Your task to perform on an android device: Show me recent news Image 0: 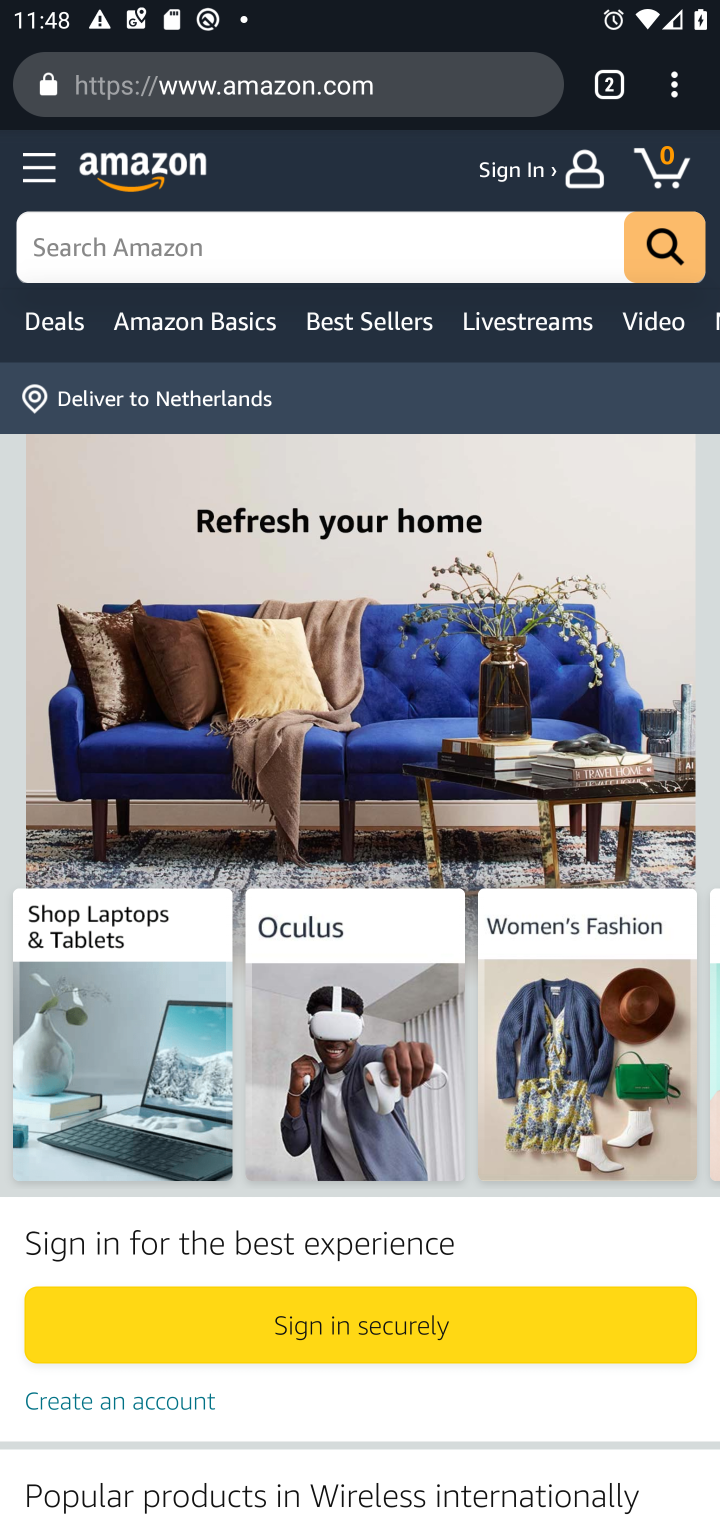
Step 0: press home button
Your task to perform on an android device: Show me recent news Image 1: 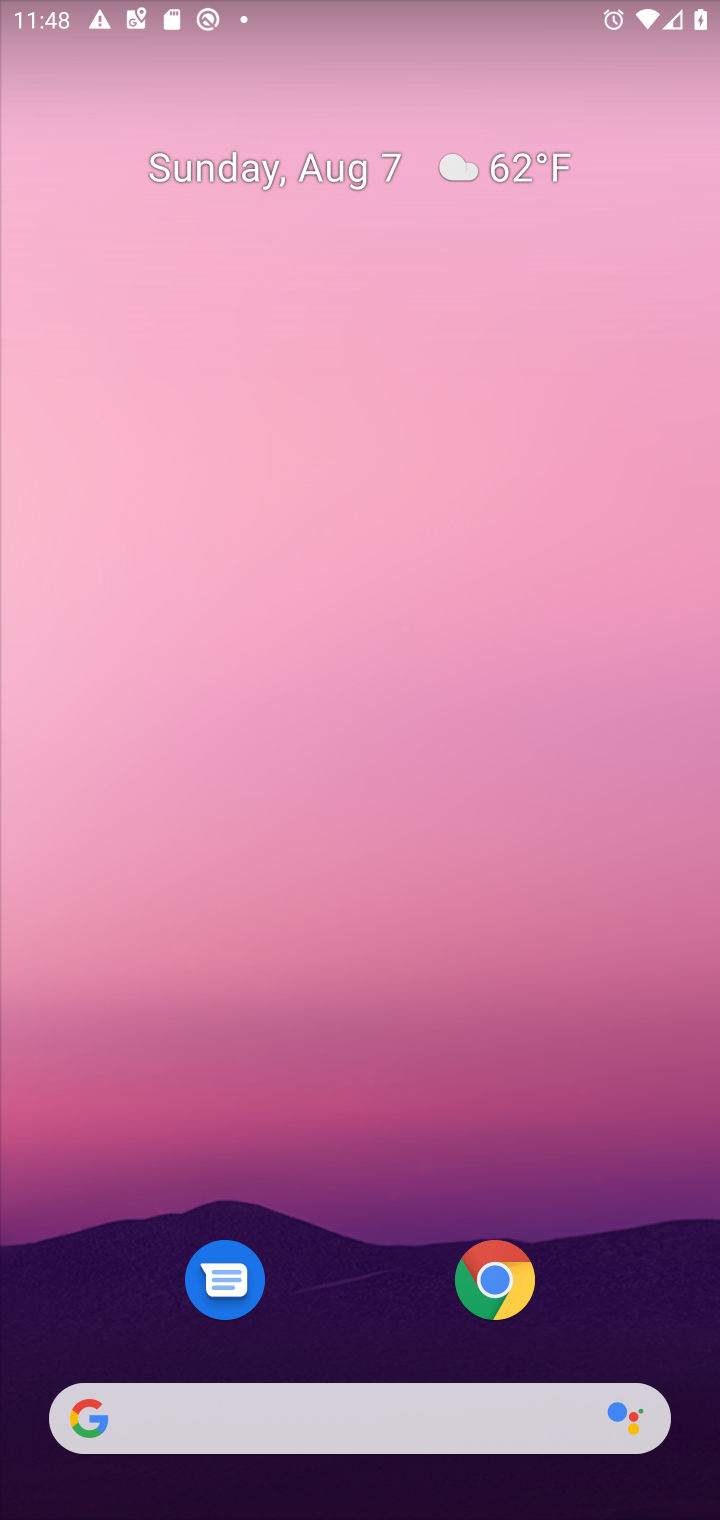
Step 1: task complete